Your task to perform on an android device: Play the last video I watched on Youtube Image 0: 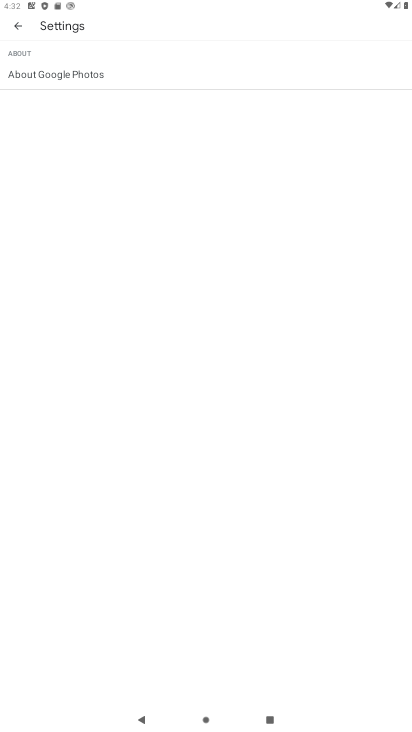
Step 0: press home button
Your task to perform on an android device: Play the last video I watched on Youtube Image 1: 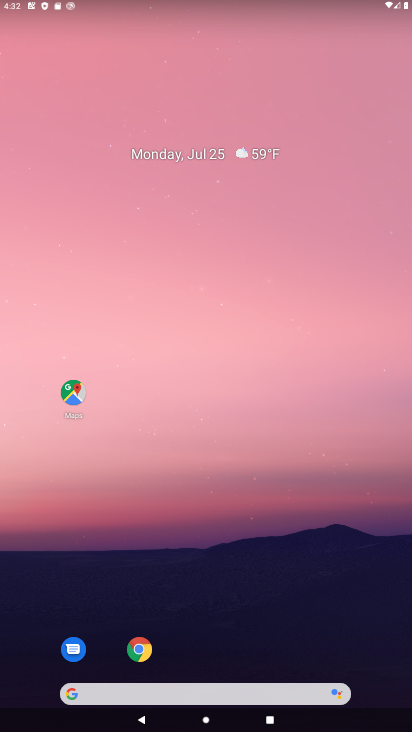
Step 1: drag from (324, 680) to (338, 64)
Your task to perform on an android device: Play the last video I watched on Youtube Image 2: 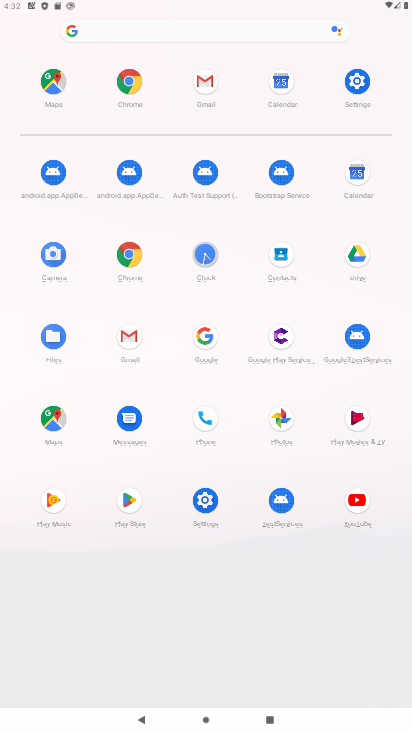
Step 2: click (356, 520)
Your task to perform on an android device: Play the last video I watched on Youtube Image 3: 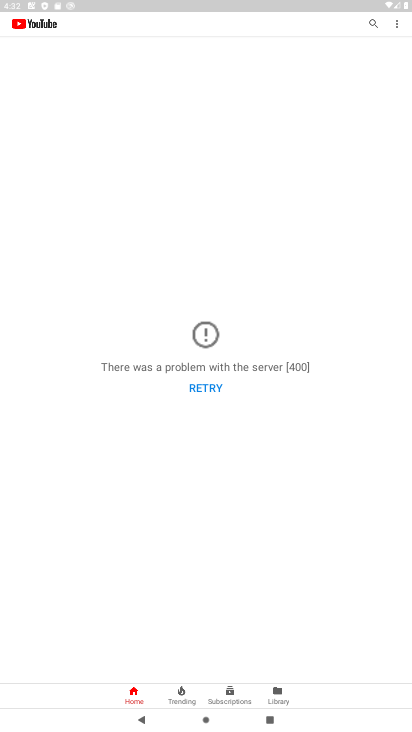
Step 3: click (269, 697)
Your task to perform on an android device: Play the last video I watched on Youtube Image 4: 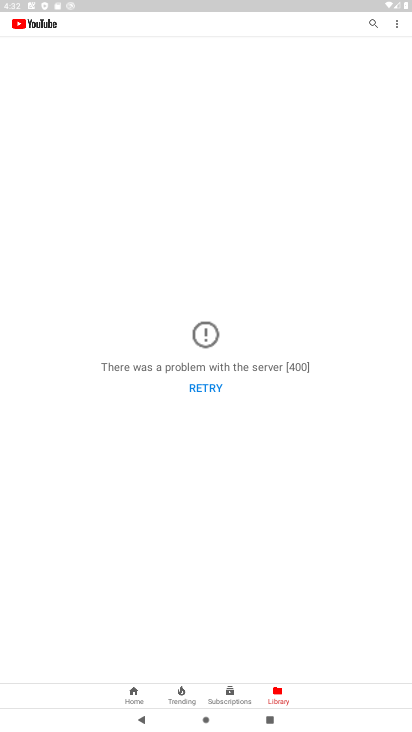
Step 4: click (205, 392)
Your task to perform on an android device: Play the last video I watched on Youtube Image 5: 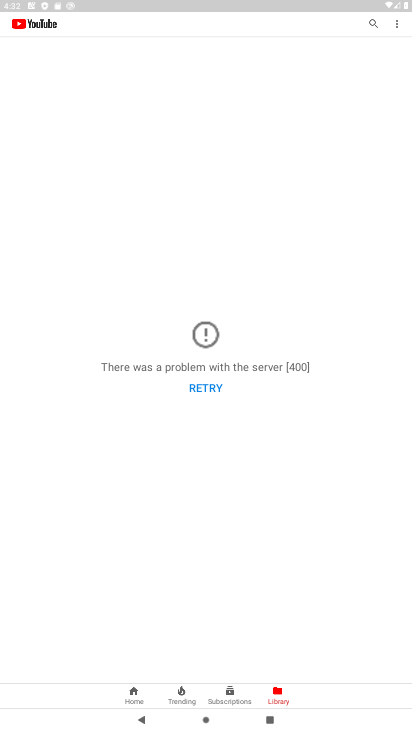
Step 5: task complete